Your task to perform on an android device: When is my next appointment? Image 0: 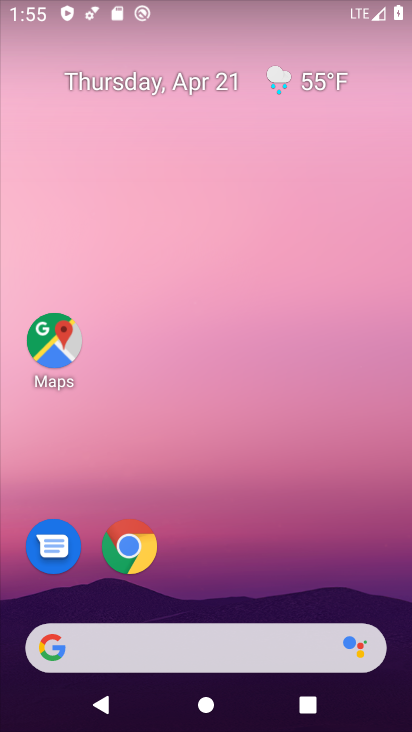
Step 0: drag from (228, 600) to (213, 45)
Your task to perform on an android device: When is my next appointment? Image 1: 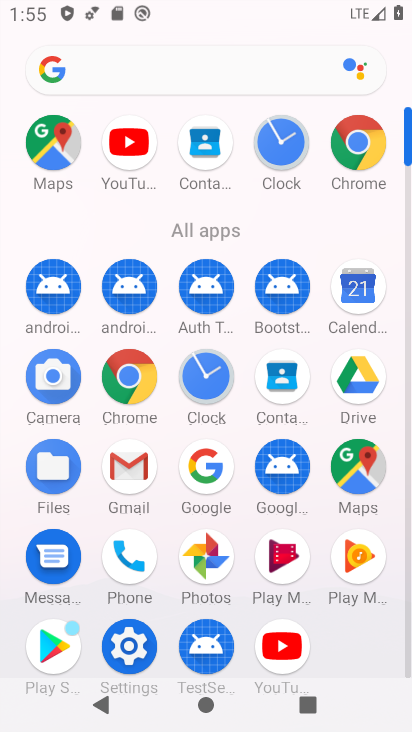
Step 1: click (342, 296)
Your task to perform on an android device: When is my next appointment? Image 2: 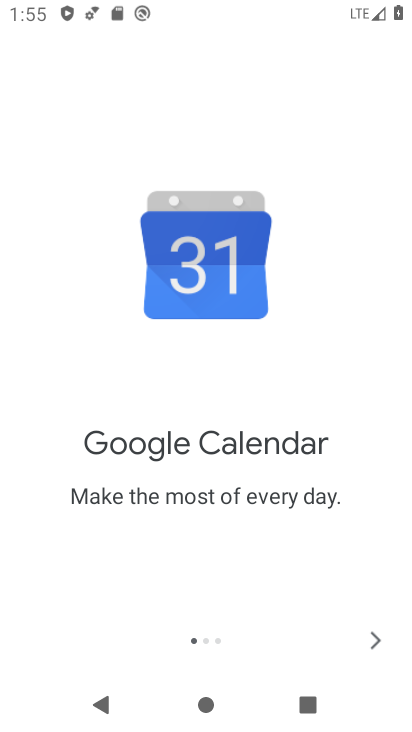
Step 2: click (373, 643)
Your task to perform on an android device: When is my next appointment? Image 3: 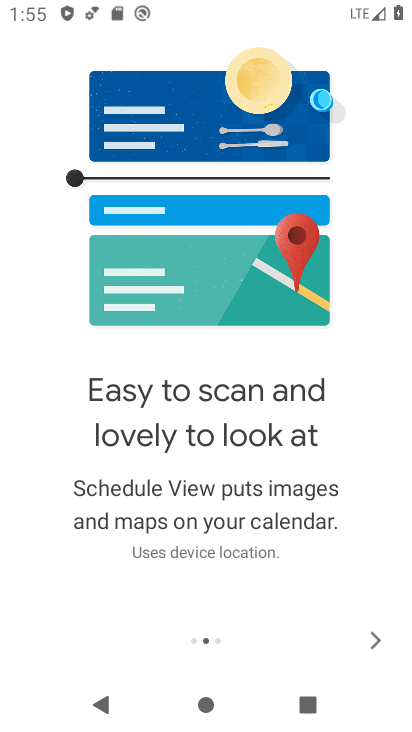
Step 3: click (373, 643)
Your task to perform on an android device: When is my next appointment? Image 4: 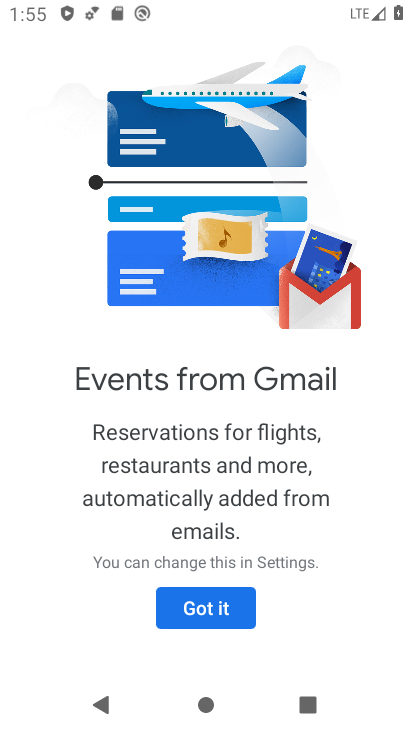
Step 4: click (178, 617)
Your task to perform on an android device: When is my next appointment? Image 5: 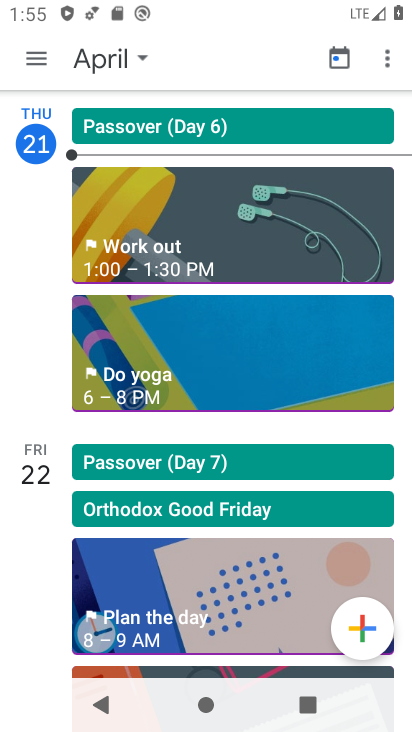
Step 5: click (44, 46)
Your task to perform on an android device: When is my next appointment? Image 6: 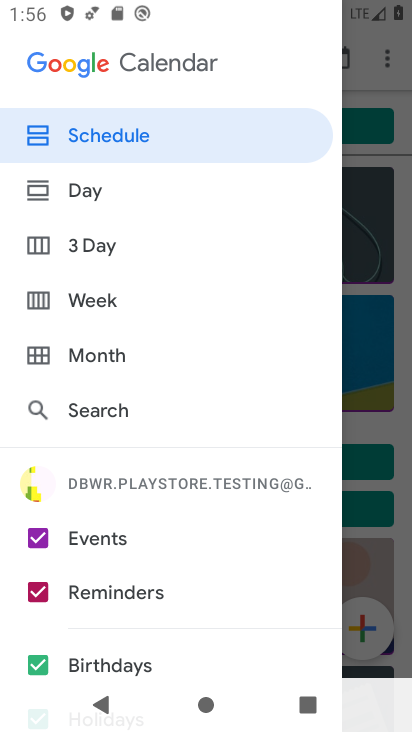
Step 6: drag from (152, 559) to (155, 238)
Your task to perform on an android device: When is my next appointment? Image 7: 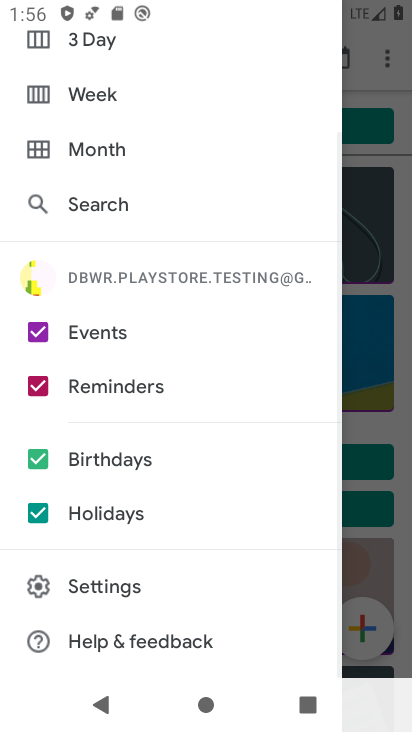
Step 7: drag from (167, 552) to (191, 193)
Your task to perform on an android device: When is my next appointment? Image 8: 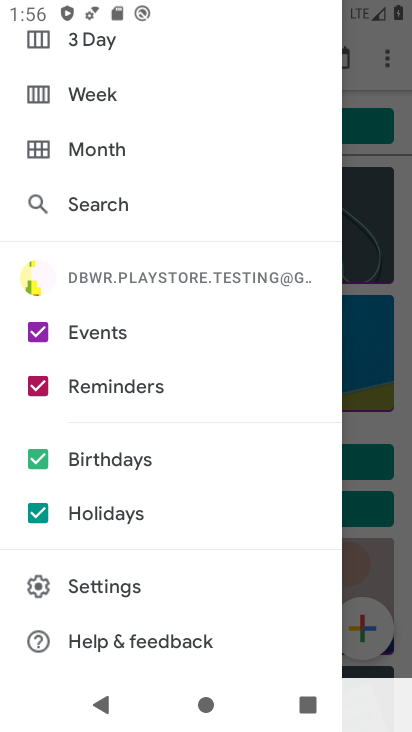
Step 8: click (157, 575)
Your task to perform on an android device: When is my next appointment? Image 9: 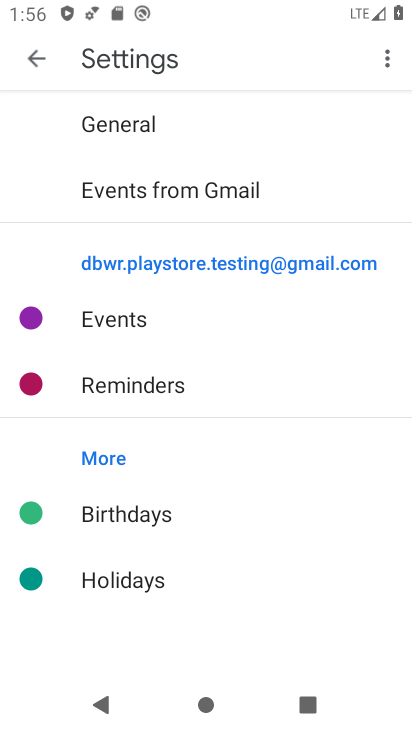
Step 9: task complete